Your task to perform on an android device: turn on notifications settings in the gmail app Image 0: 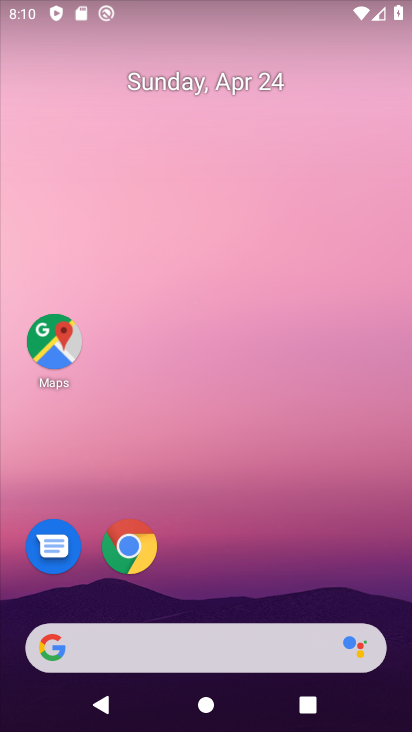
Step 0: drag from (247, 601) to (222, 154)
Your task to perform on an android device: turn on notifications settings in the gmail app Image 1: 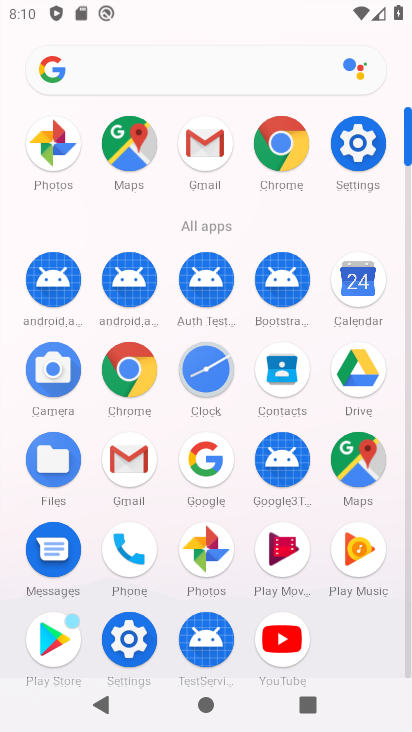
Step 1: click (192, 156)
Your task to perform on an android device: turn on notifications settings in the gmail app Image 2: 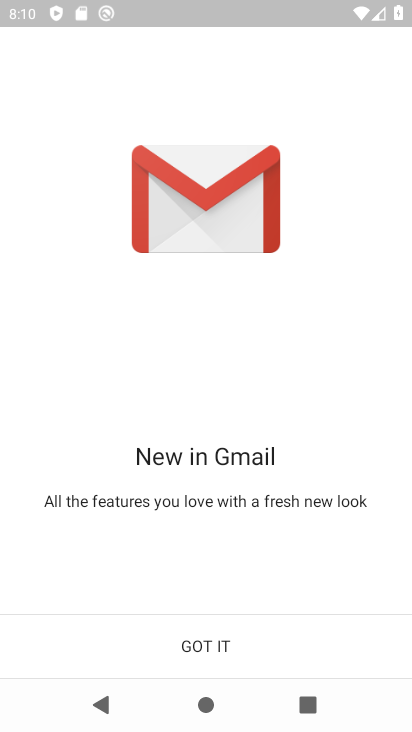
Step 2: click (199, 670)
Your task to perform on an android device: turn on notifications settings in the gmail app Image 3: 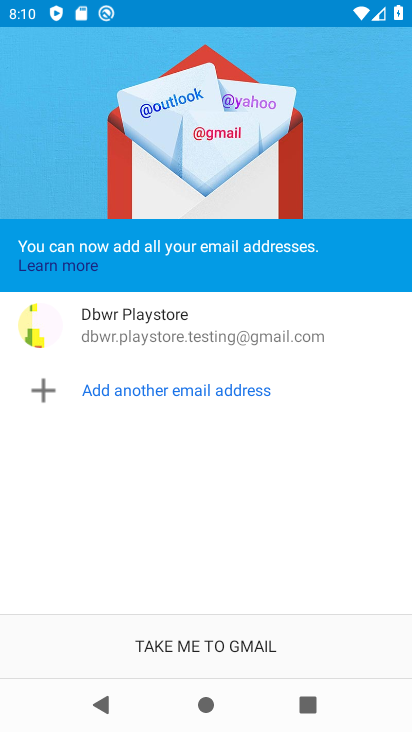
Step 3: click (198, 670)
Your task to perform on an android device: turn on notifications settings in the gmail app Image 4: 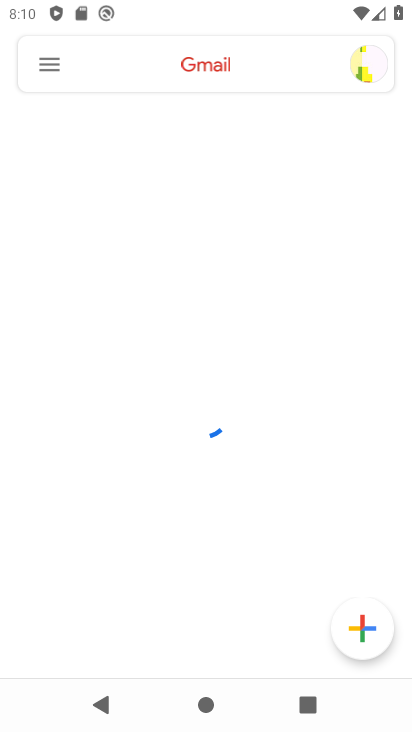
Step 4: click (36, 64)
Your task to perform on an android device: turn on notifications settings in the gmail app Image 5: 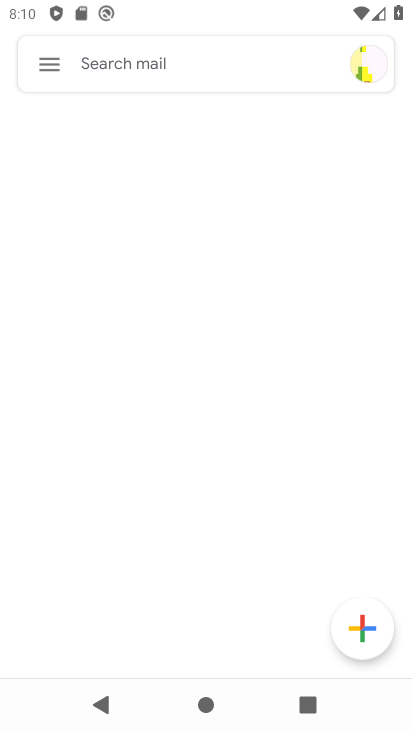
Step 5: click (155, 293)
Your task to perform on an android device: turn on notifications settings in the gmail app Image 6: 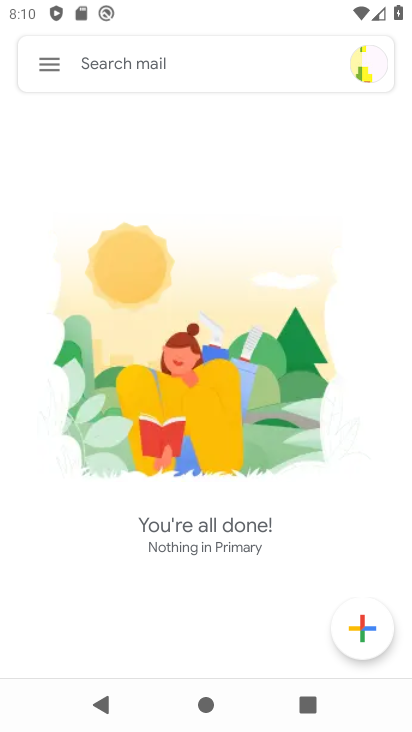
Step 6: click (38, 65)
Your task to perform on an android device: turn on notifications settings in the gmail app Image 7: 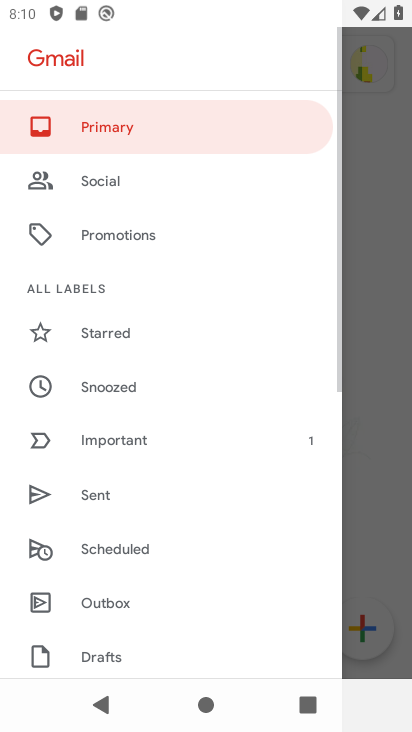
Step 7: drag from (182, 413) to (169, 167)
Your task to perform on an android device: turn on notifications settings in the gmail app Image 8: 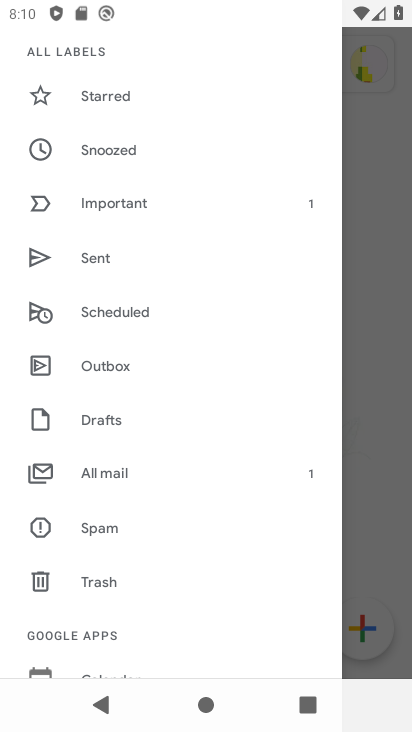
Step 8: drag from (181, 544) to (189, 135)
Your task to perform on an android device: turn on notifications settings in the gmail app Image 9: 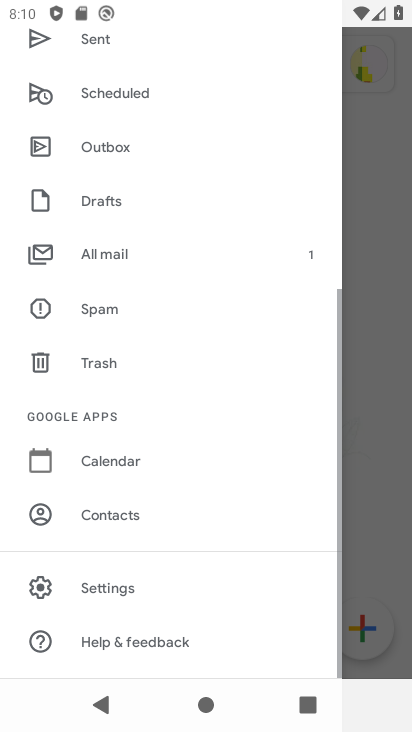
Step 9: click (168, 583)
Your task to perform on an android device: turn on notifications settings in the gmail app Image 10: 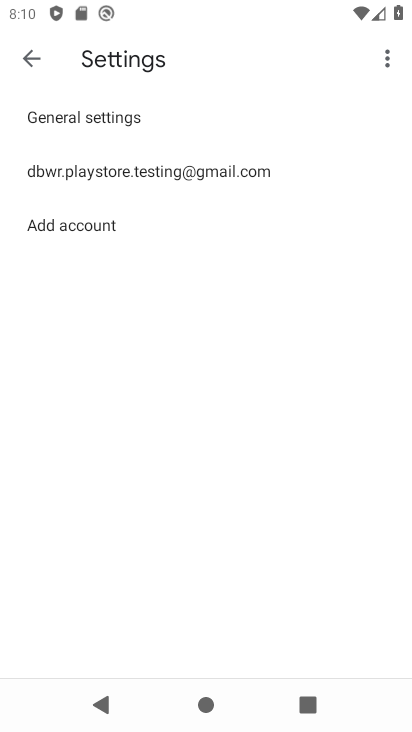
Step 10: click (148, 177)
Your task to perform on an android device: turn on notifications settings in the gmail app Image 11: 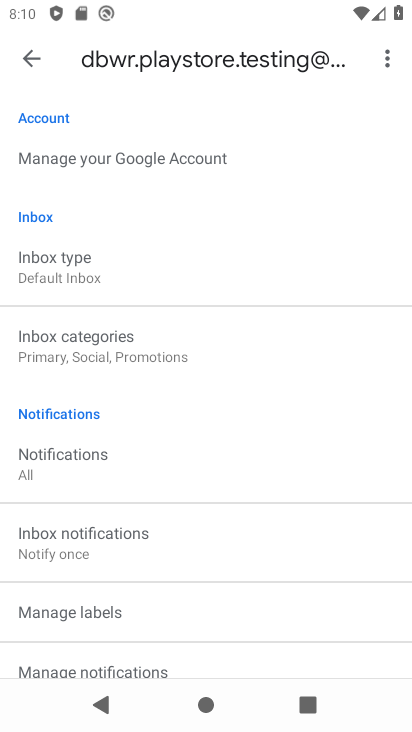
Step 11: click (164, 466)
Your task to perform on an android device: turn on notifications settings in the gmail app Image 12: 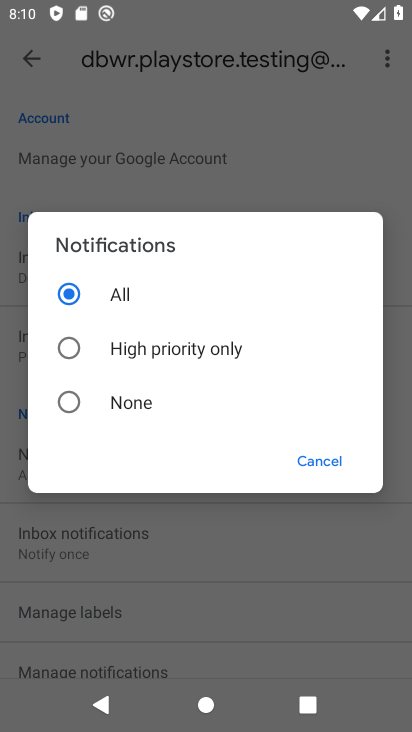
Step 12: task complete